Your task to perform on an android device: read, delete, or share a saved page in the chrome app Image 0: 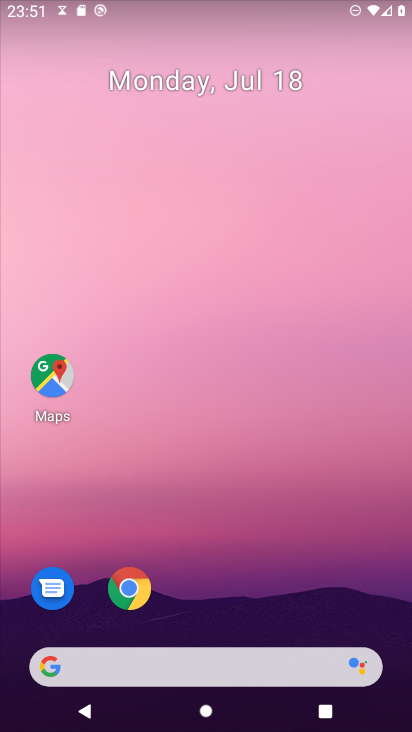
Step 0: press home button
Your task to perform on an android device: read, delete, or share a saved page in the chrome app Image 1: 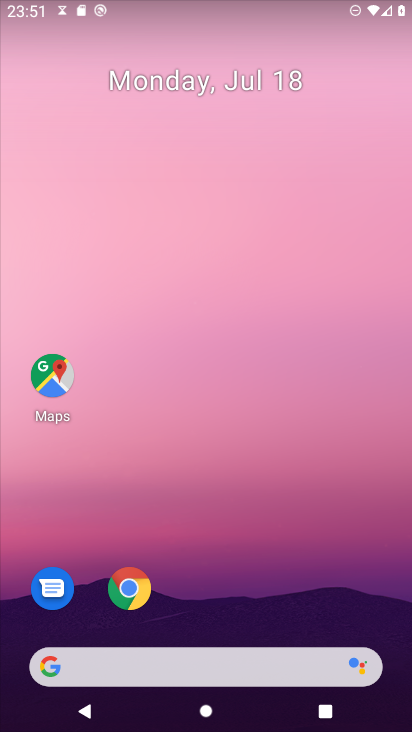
Step 1: drag from (261, 594) to (329, 159)
Your task to perform on an android device: read, delete, or share a saved page in the chrome app Image 2: 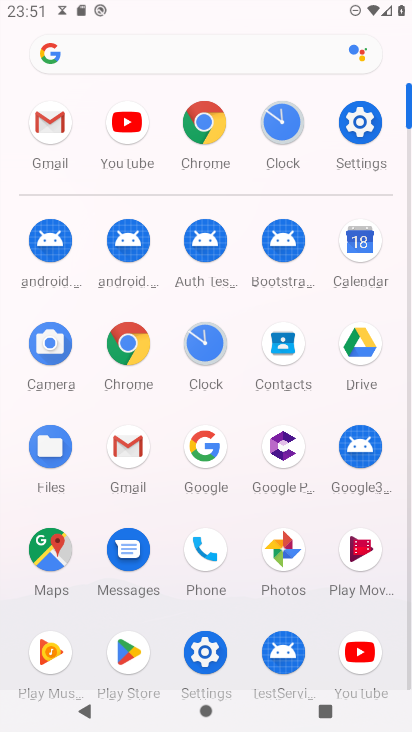
Step 2: click (208, 121)
Your task to perform on an android device: read, delete, or share a saved page in the chrome app Image 3: 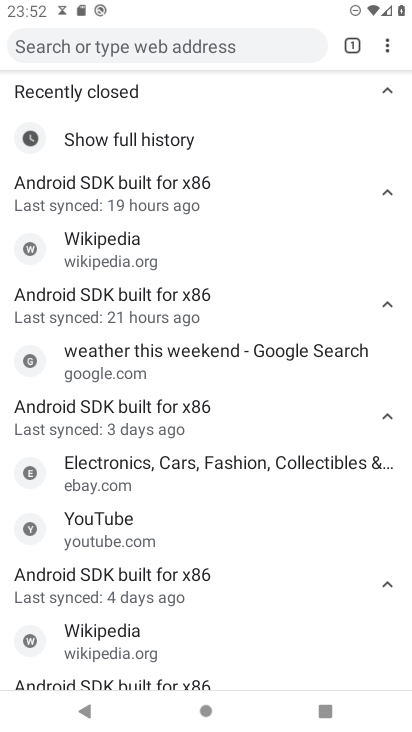
Step 3: task complete